Your task to perform on an android device: refresh tabs in the chrome app Image 0: 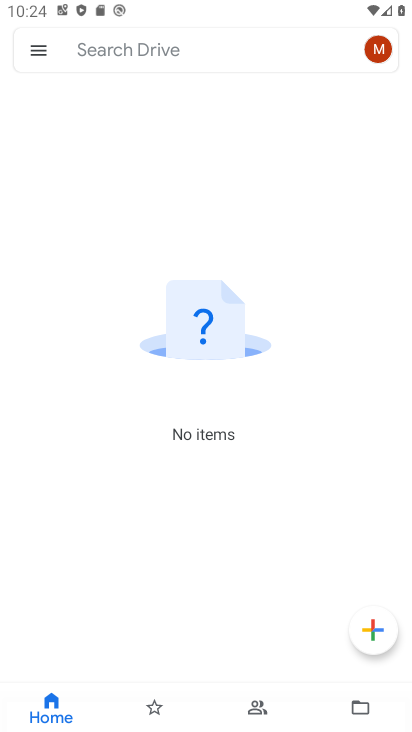
Step 0: press home button
Your task to perform on an android device: refresh tabs in the chrome app Image 1: 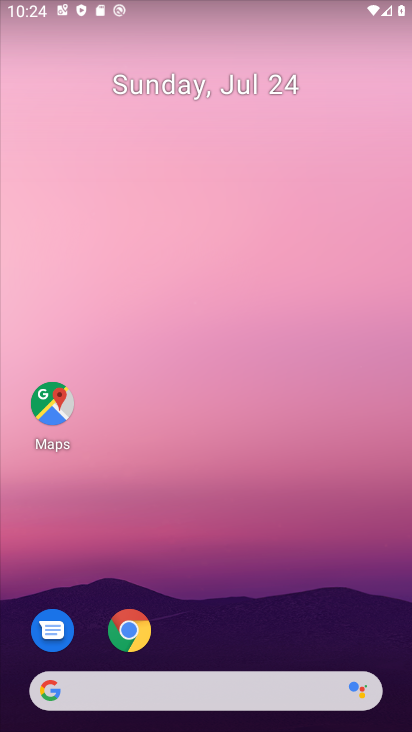
Step 1: click (130, 643)
Your task to perform on an android device: refresh tabs in the chrome app Image 2: 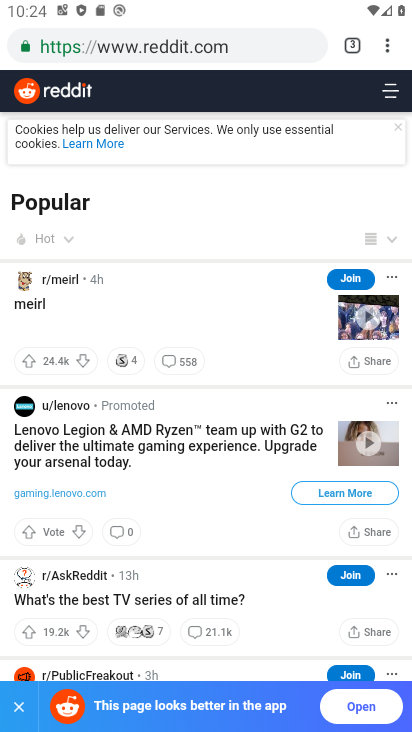
Step 2: click (396, 42)
Your task to perform on an android device: refresh tabs in the chrome app Image 3: 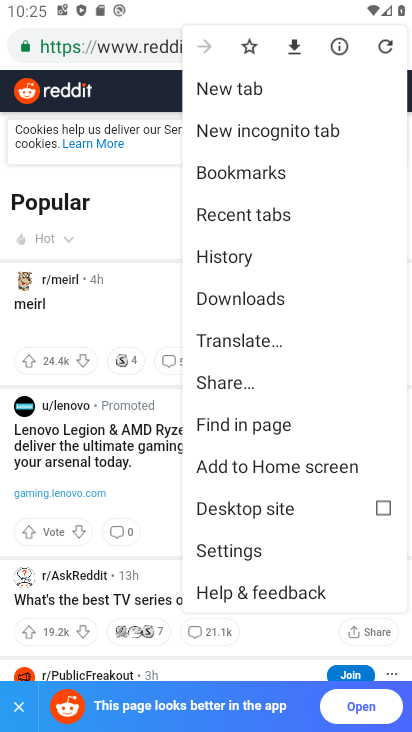
Step 3: click (377, 50)
Your task to perform on an android device: refresh tabs in the chrome app Image 4: 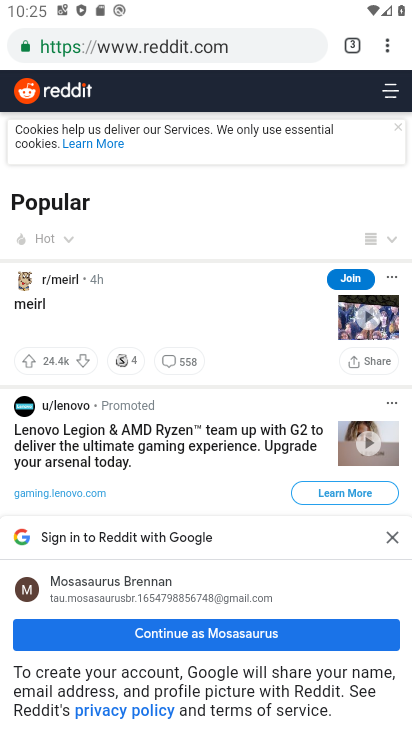
Step 4: task complete